Your task to perform on an android device: Open CNN.com Image 0: 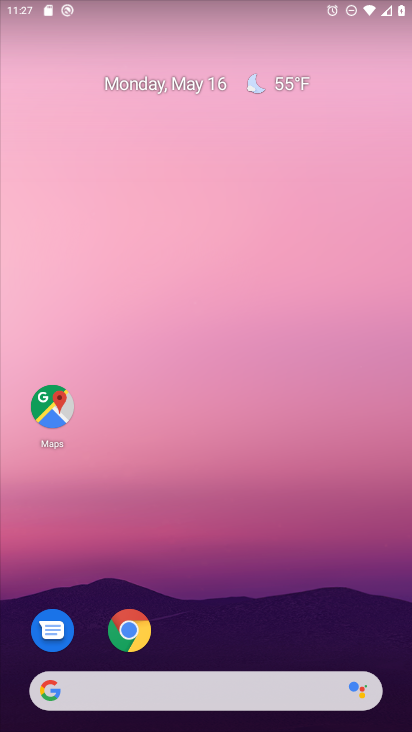
Step 0: click (131, 638)
Your task to perform on an android device: Open CNN.com Image 1: 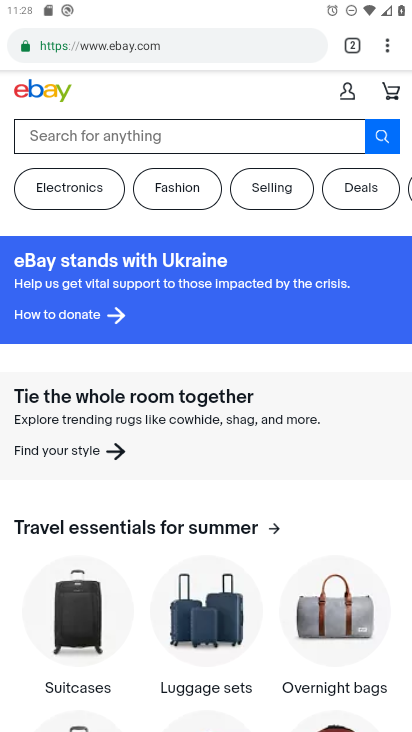
Step 1: click (350, 51)
Your task to perform on an android device: Open CNN.com Image 2: 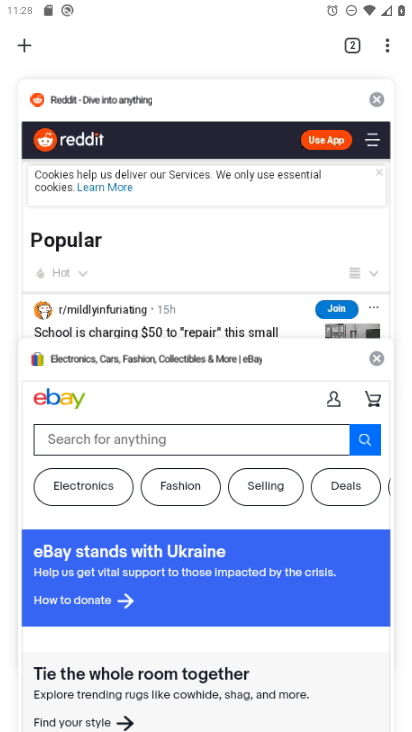
Step 2: click (24, 46)
Your task to perform on an android device: Open CNN.com Image 3: 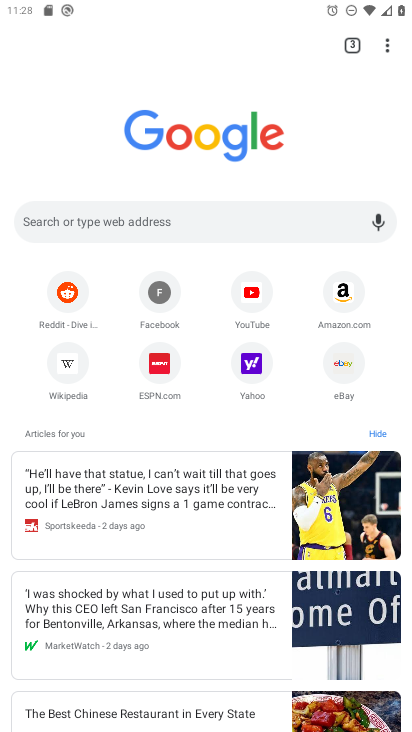
Step 3: click (162, 216)
Your task to perform on an android device: Open CNN.com Image 4: 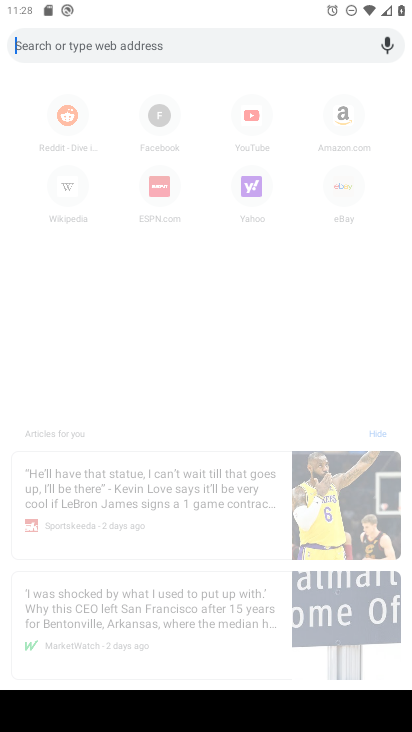
Step 4: type "CNN.com"
Your task to perform on an android device: Open CNN.com Image 5: 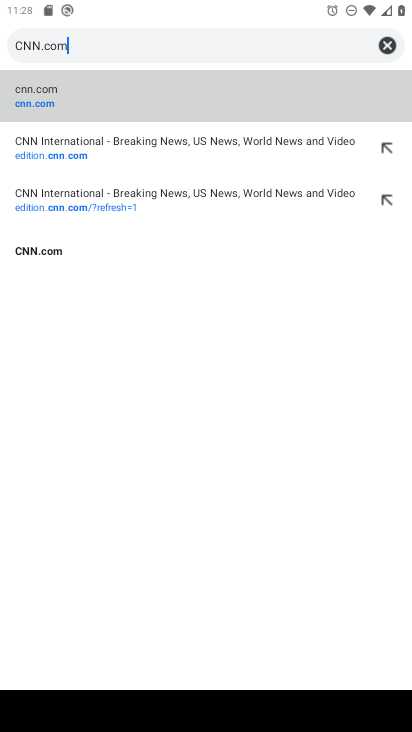
Step 5: click (175, 105)
Your task to perform on an android device: Open CNN.com Image 6: 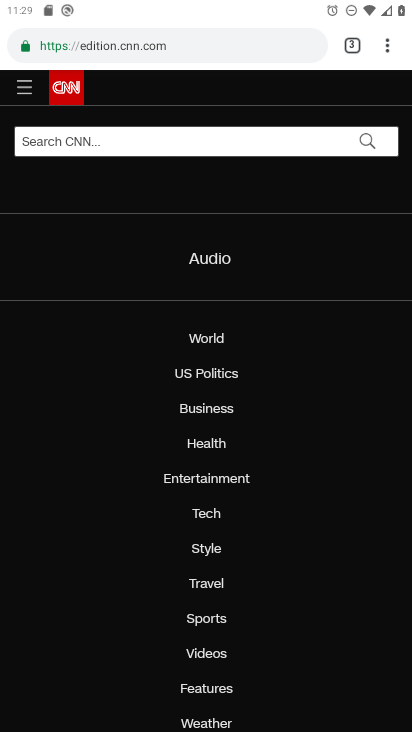
Step 6: task complete